Your task to perform on an android device: turn pop-ups off in chrome Image 0: 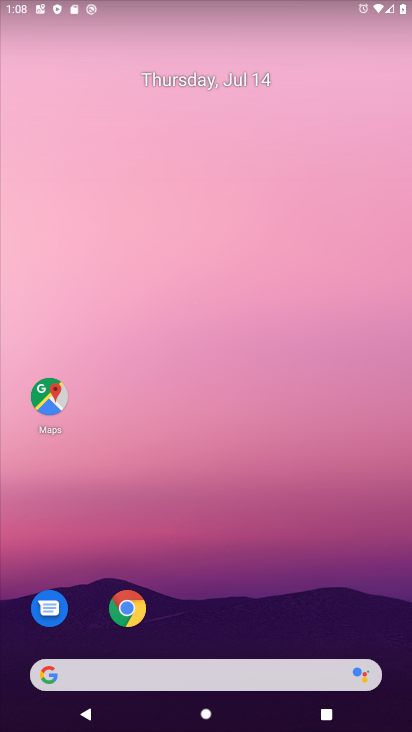
Step 0: press home button
Your task to perform on an android device: turn pop-ups off in chrome Image 1: 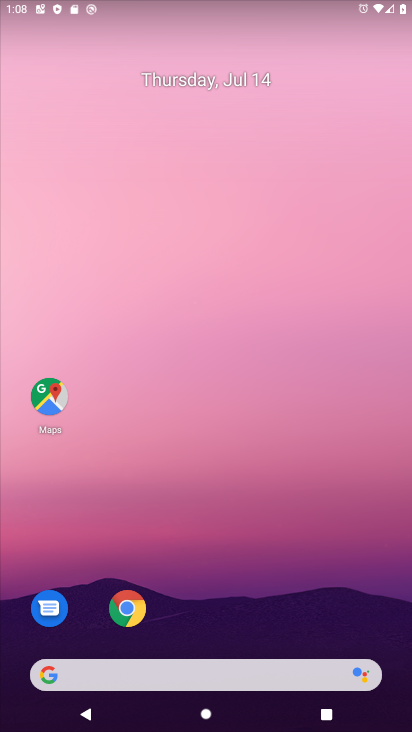
Step 1: drag from (160, 698) to (241, 189)
Your task to perform on an android device: turn pop-ups off in chrome Image 2: 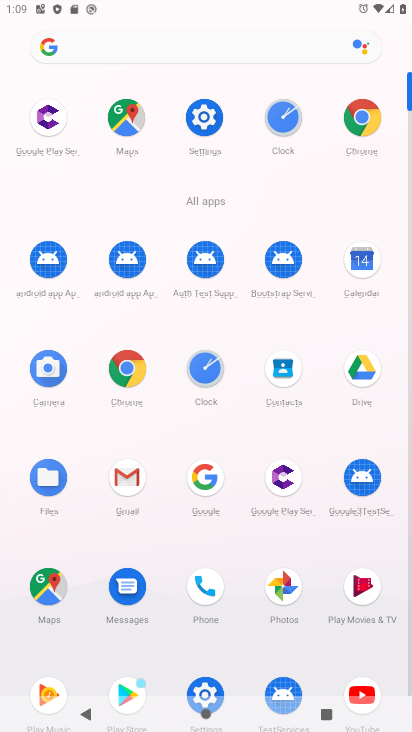
Step 2: click (360, 135)
Your task to perform on an android device: turn pop-ups off in chrome Image 3: 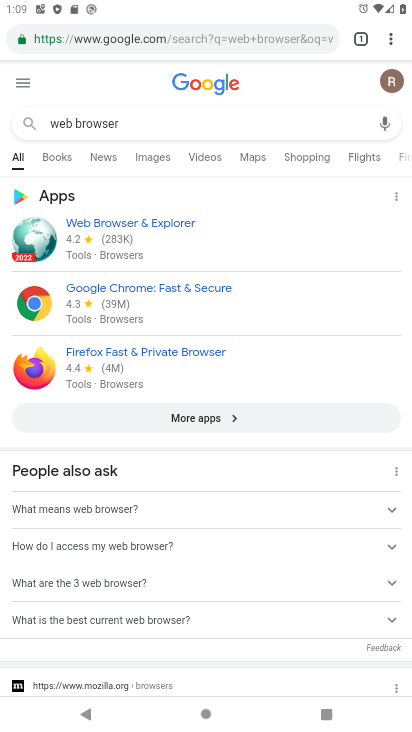
Step 3: drag from (390, 41) to (290, 430)
Your task to perform on an android device: turn pop-ups off in chrome Image 4: 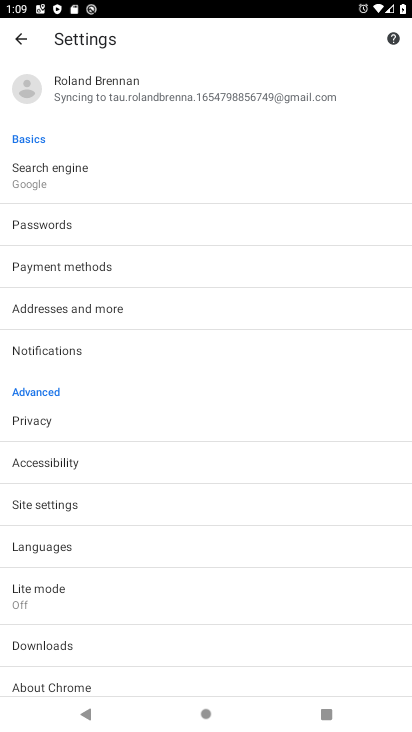
Step 4: click (77, 507)
Your task to perform on an android device: turn pop-ups off in chrome Image 5: 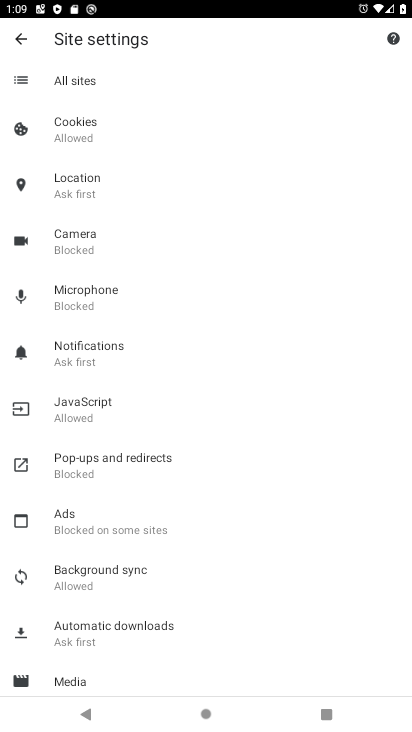
Step 5: click (99, 454)
Your task to perform on an android device: turn pop-ups off in chrome Image 6: 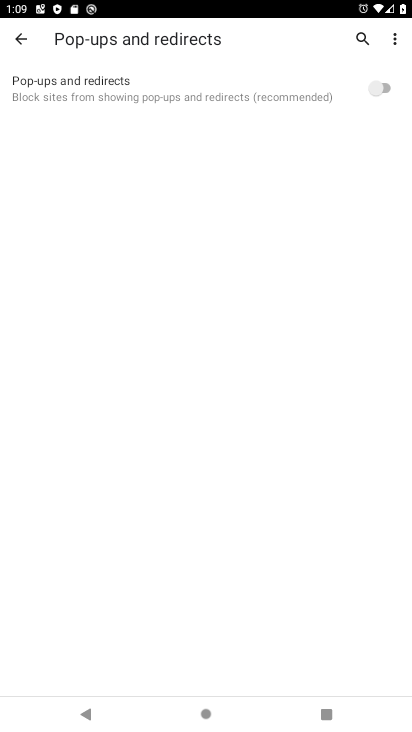
Step 6: click (100, 91)
Your task to perform on an android device: turn pop-ups off in chrome Image 7: 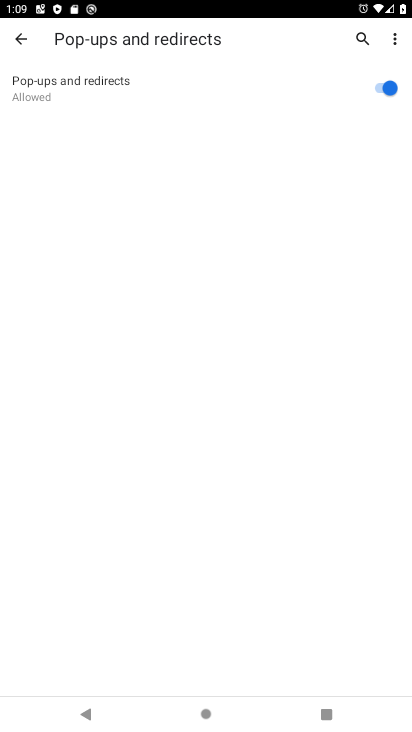
Step 7: click (100, 91)
Your task to perform on an android device: turn pop-ups off in chrome Image 8: 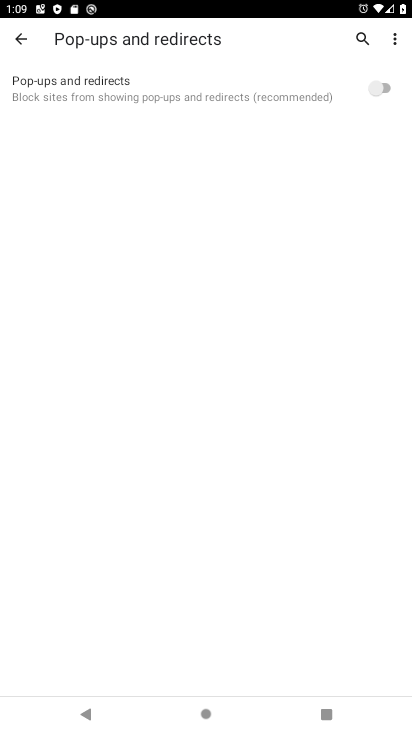
Step 8: task complete